Your task to perform on an android device: show emergency info Image 0: 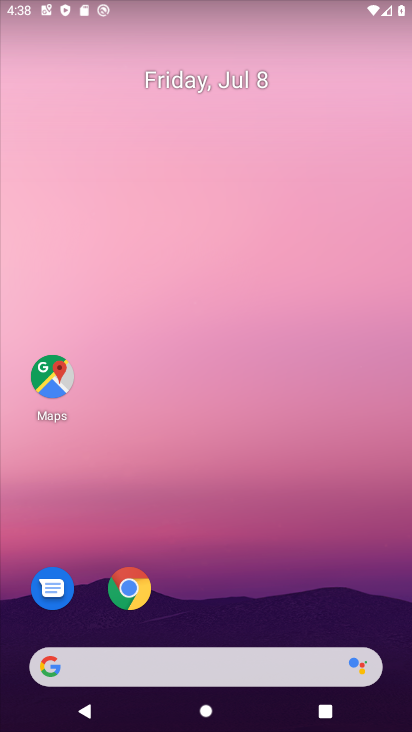
Step 0: drag from (199, 569) to (190, 19)
Your task to perform on an android device: show emergency info Image 1: 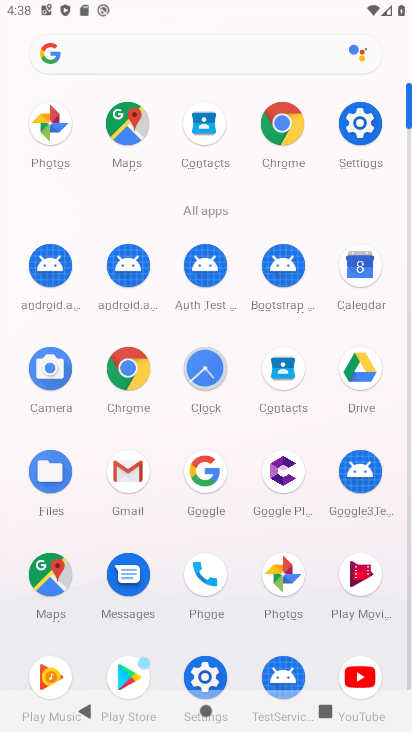
Step 1: click (357, 120)
Your task to perform on an android device: show emergency info Image 2: 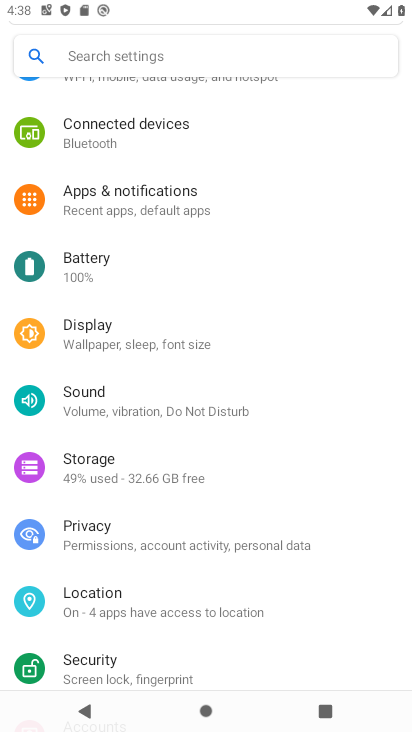
Step 2: drag from (158, 585) to (192, 11)
Your task to perform on an android device: show emergency info Image 3: 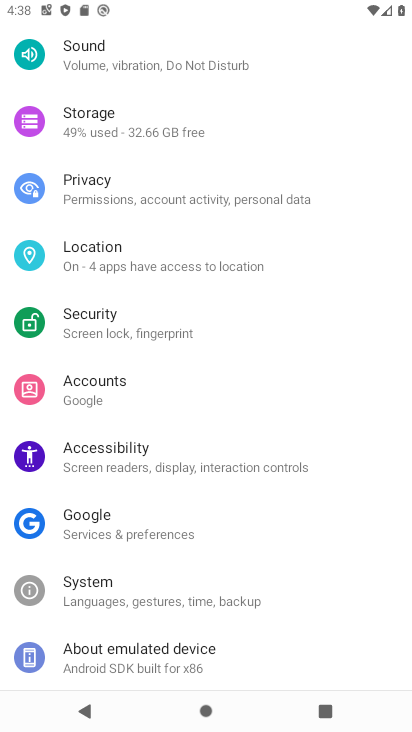
Step 3: drag from (64, 507) to (61, 36)
Your task to perform on an android device: show emergency info Image 4: 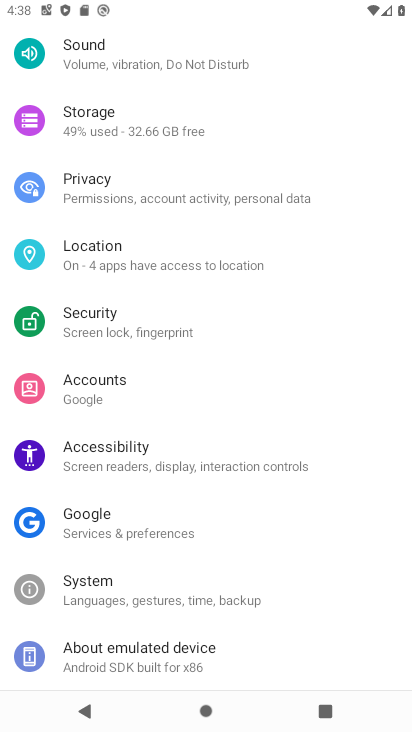
Step 4: click (115, 654)
Your task to perform on an android device: show emergency info Image 5: 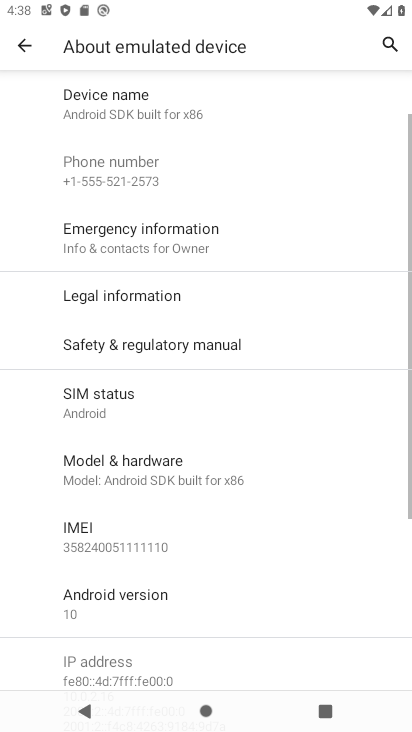
Step 5: click (162, 227)
Your task to perform on an android device: show emergency info Image 6: 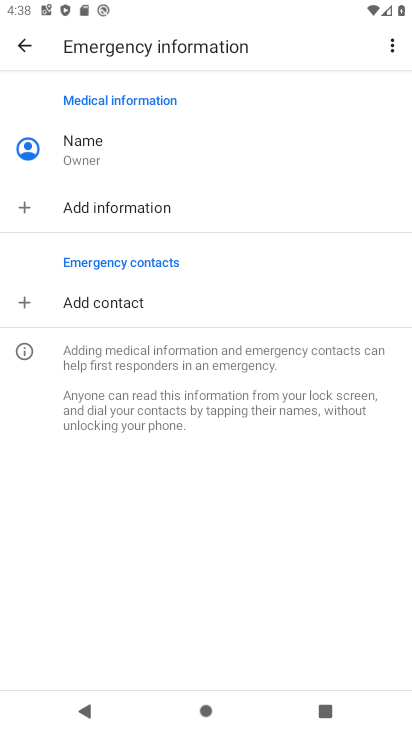
Step 6: task complete